Your task to perform on an android device: Go to Google maps Image 0: 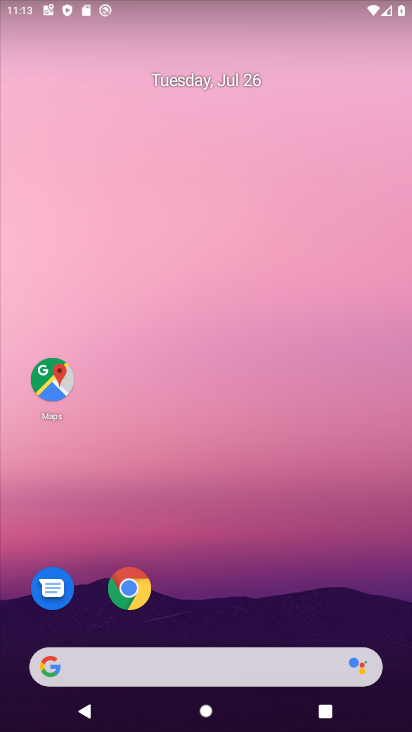
Step 0: drag from (294, 581) to (333, 51)
Your task to perform on an android device: Go to Google maps Image 1: 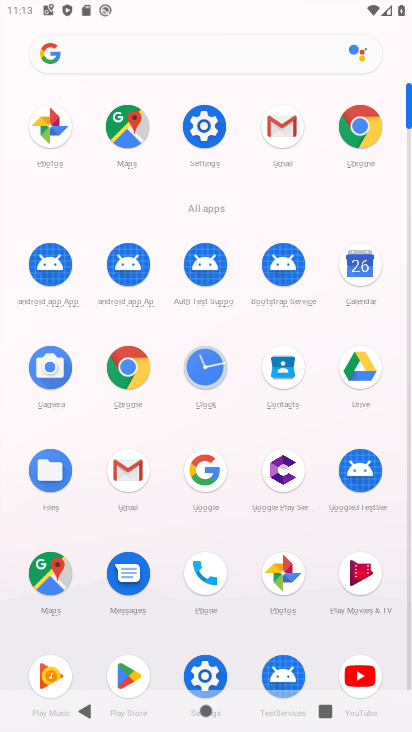
Step 1: click (58, 567)
Your task to perform on an android device: Go to Google maps Image 2: 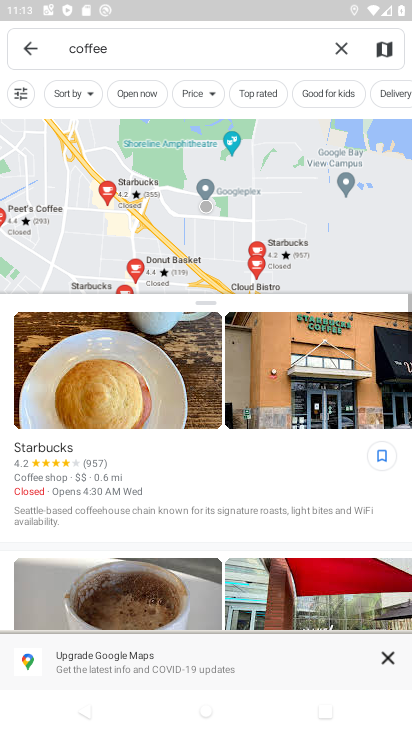
Step 2: click (25, 45)
Your task to perform on an android device: Go to Google maps Image 3: 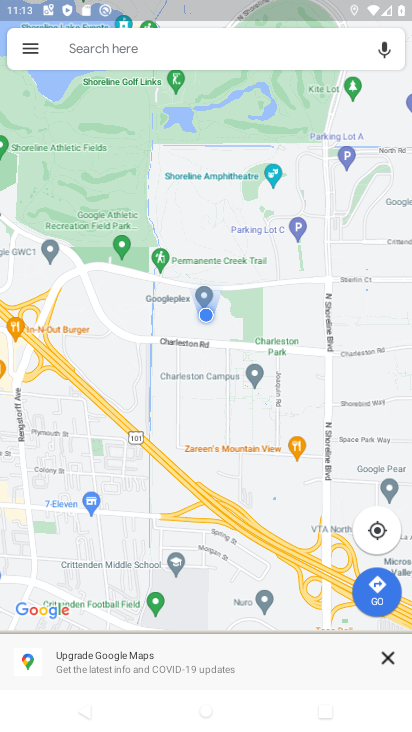
Step 3: task complete